Your task to perform on an android device: toggle data saver in the chrome app Image 0: 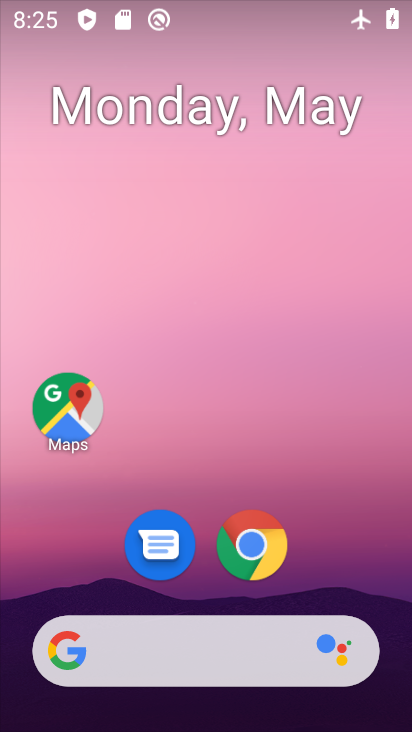
Step 0: click (235, 565)
Your task to perform on an android device: toggle data saver in the chrome app Image 1: 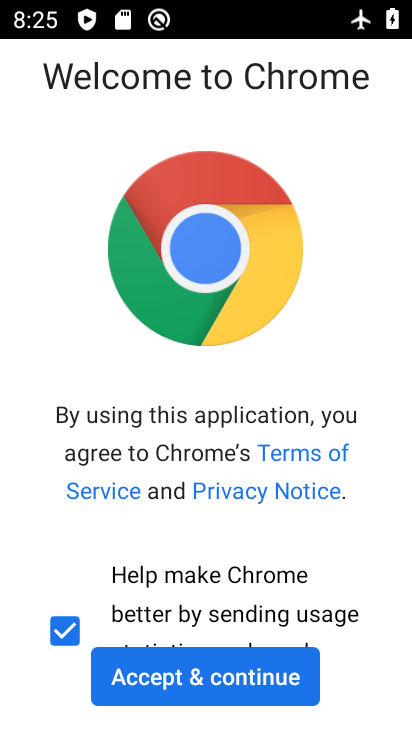
Step 1: click (175, 689)
Your task to perform on an android device: toggle data saver in the chrome app Image 2: 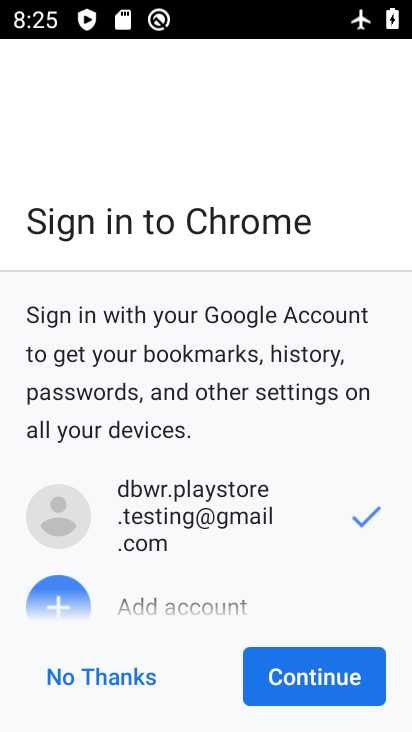
Step 2: click (258, 678)
Your task to perform on an android device: toggle data saver in the chrome app Image 3: 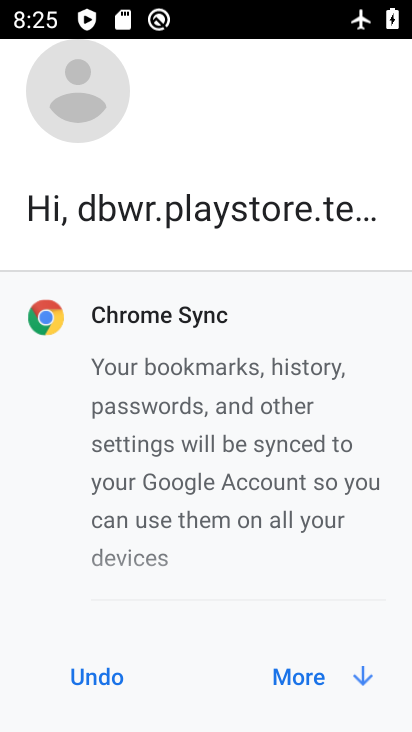
Step 3: click (291, 683)
Your task to perform on an android device: toggle data saver in the chrome app Image 4: 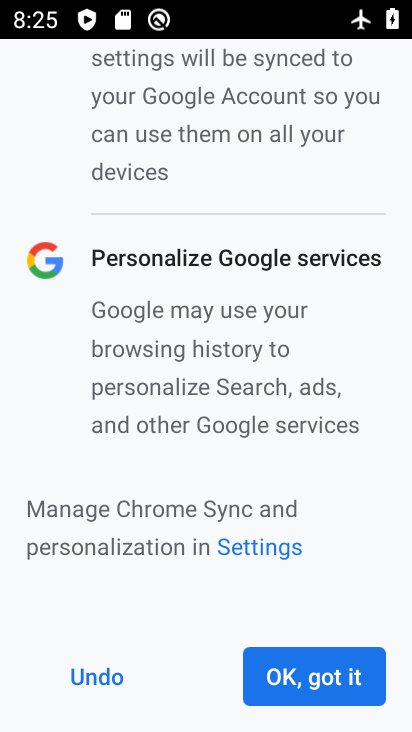
Step 4: click (291, 683)
Your task to perform on an android device: toggle data saver in the chrome app Image 5: 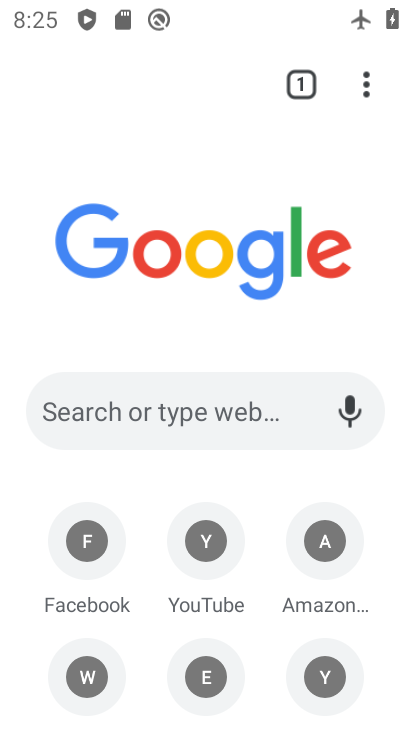
Step 5: click (361, 78)
Your task to perform on an android device: toggle data saver in the chrome app Image 6: 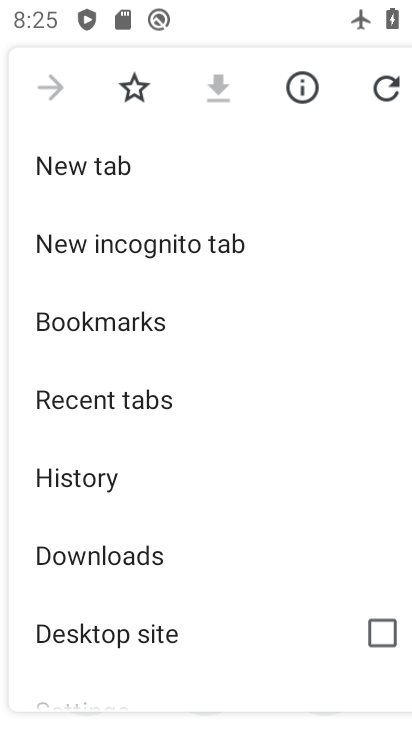
Step 6: drag from (168, 588) to (217, 277)
Your task to perform on an android device: toggle data saver in the chrome app Image 7: 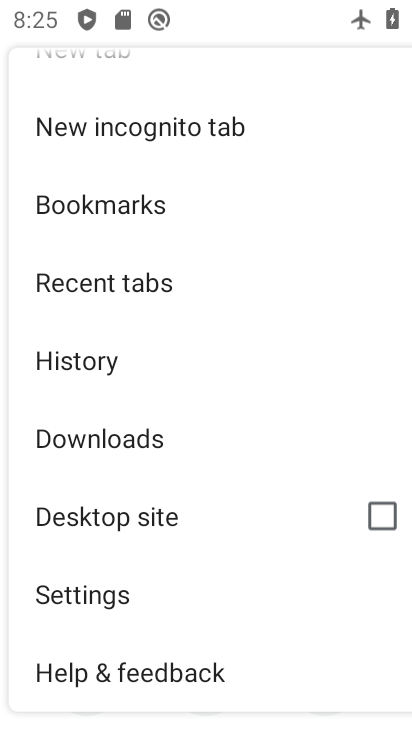
Step 7: click (145, 598)
Your task to perform on an android device: toggle data saver in the chrome app Image 8: 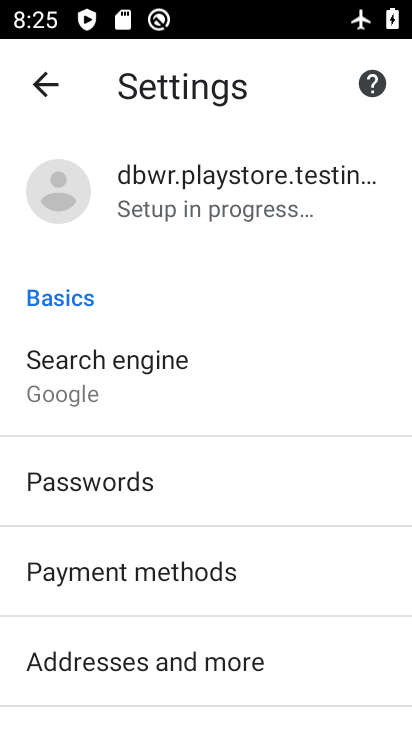
Step 8: drag from (234, 644) to (281, 305)
Your task to perform on an android device: toggle data saver in the chrome app Image 9: 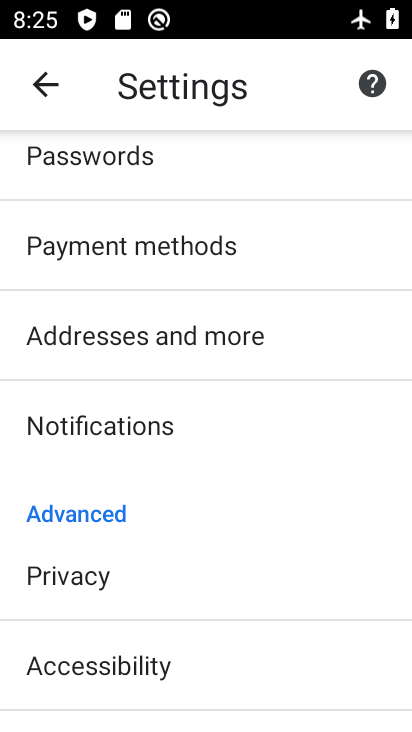
Step 9: drag from (214, 594) to (262, 256)
Your task to perform on an android device: toggle data saver in the chrome app Image 10: 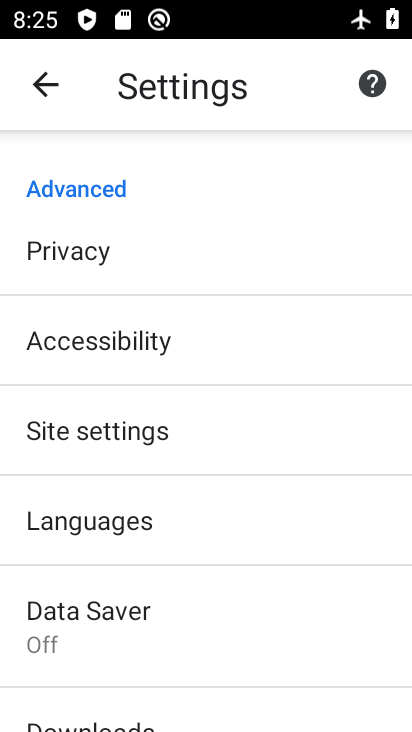
Step 10: click (162, 612)
Your task to perform on an android device: toggle data saver in the chrome app Image 11: 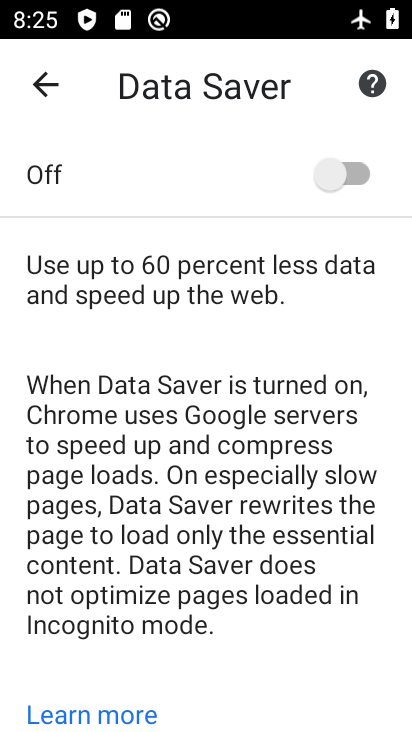
Step 11: click (345, 170)
Your task to perform on an android device: toggle data saver in the chrome app Image 12: 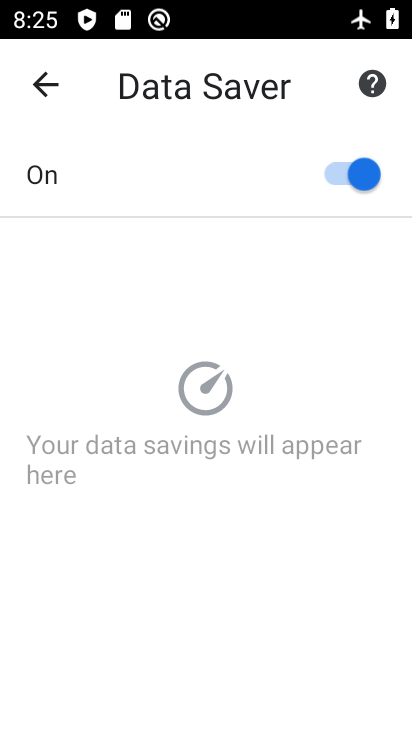
Step 12: task complete